Your task to perform on an android device: Open the web browser Image 0: 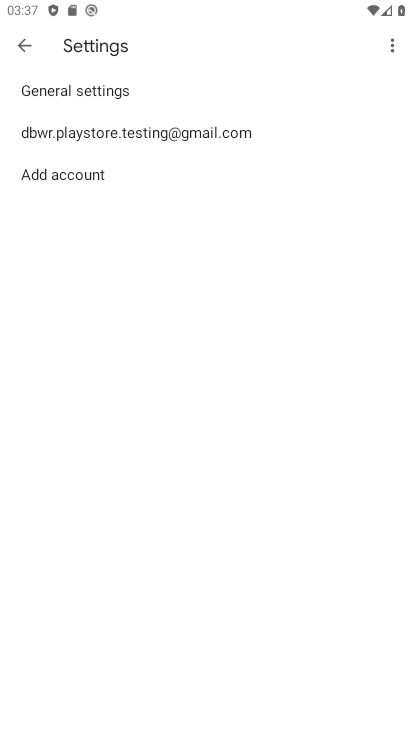
Step 0: click (383, 458)
Your task to perform on an android device: Open the web browser Image 1: 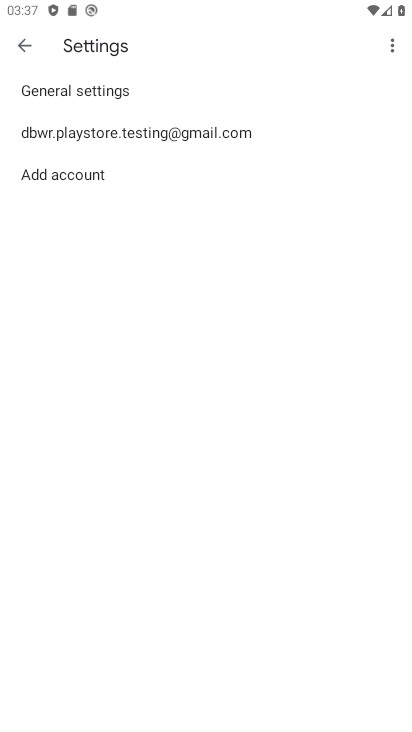
Step 1: press home button
Your task to perform on an android device: Open the web browser Image 2: 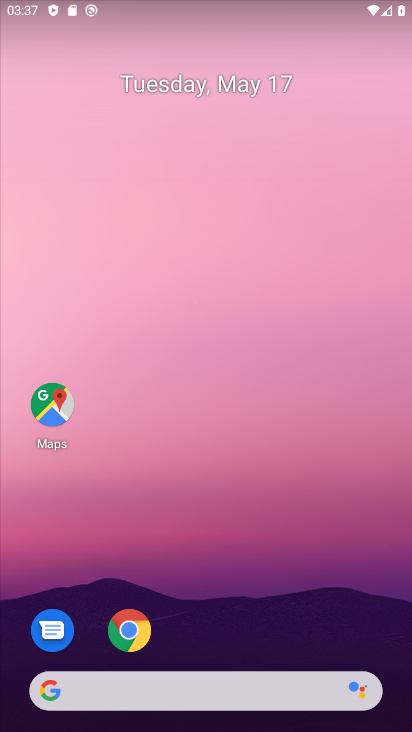
Step 2: drag from (240, 630) to (360, 0)
Your task to perform on an android device: Open the web browser Image 3: 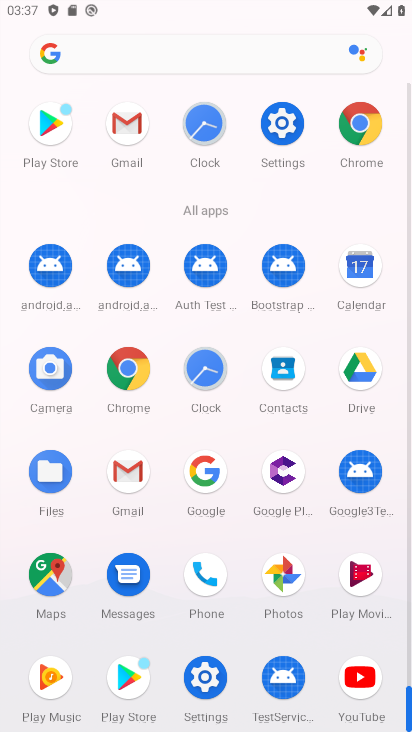
Step 3: click (205, 471)
Your task to perform on an android device: Open the web browser Image 4: 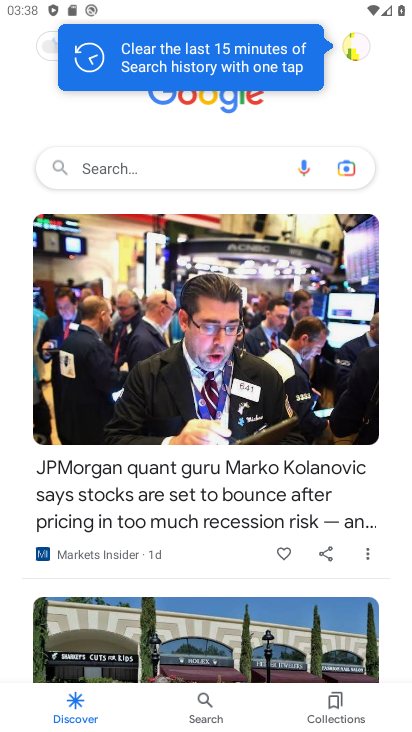
Step 4: task complete